Your task to perform on an android device: delete browsing data in the chrome app Image 0: 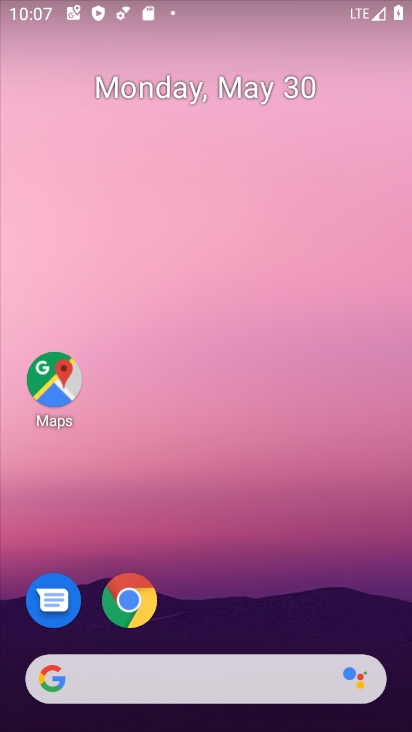
Step 0: click (142, 613)
Your task to perform on an android device: delete browsing data in the chrome app Image 1: 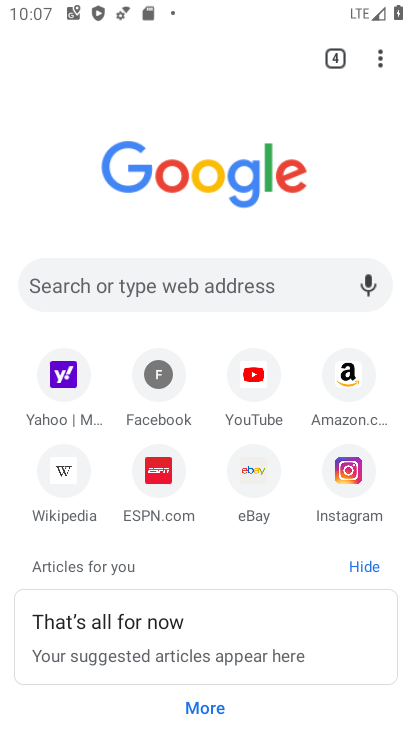
Step 1: click (375, 50)
Your task to perform on an android device: delete browsing data in the chrome app Image 2: 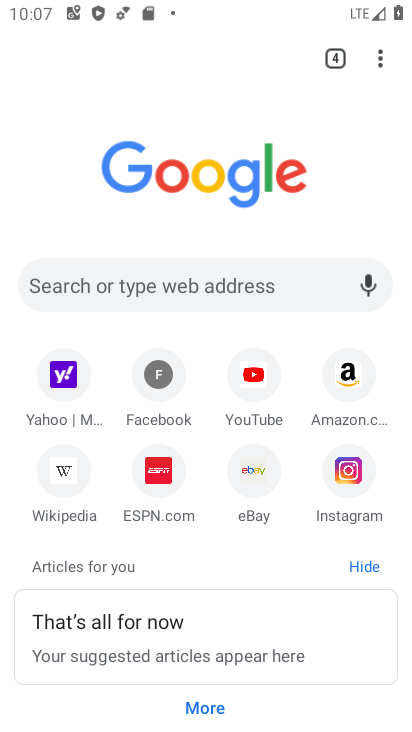
Step 2: drag from (375, 50) to (216, 335)
Your task to perform on an android device: delete browsing data in the chrome app Image 3: 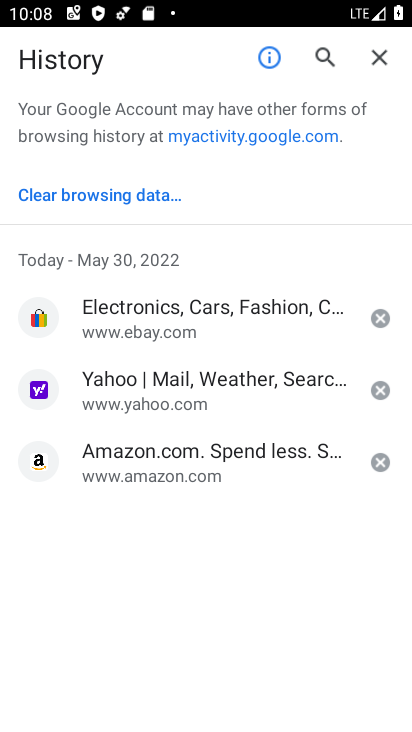
Step 3: click (103, 193)
Your task to perform on an android device: delete browsing data in the chrome app Image 4: 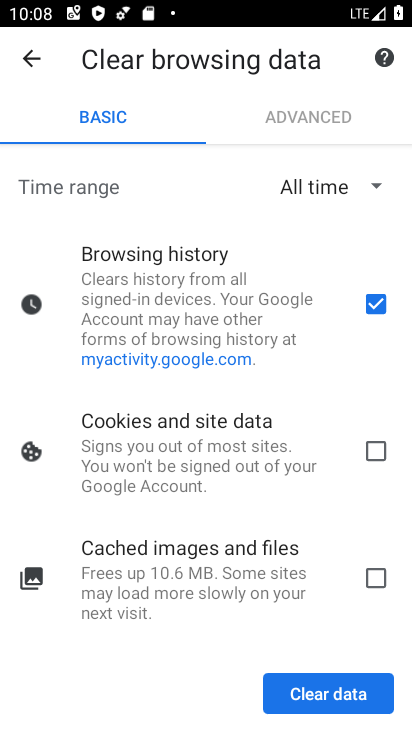
Step 4: click (331, 690)
Your task to perform on an android device: delete browsing data in the chrome app Image 5: 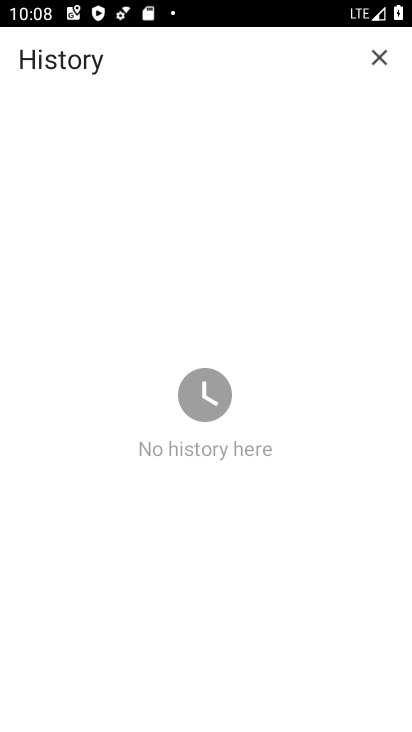
Step 5: task complete